Your task to perform on an android device: Show me popular games on the Play Store Image 0: 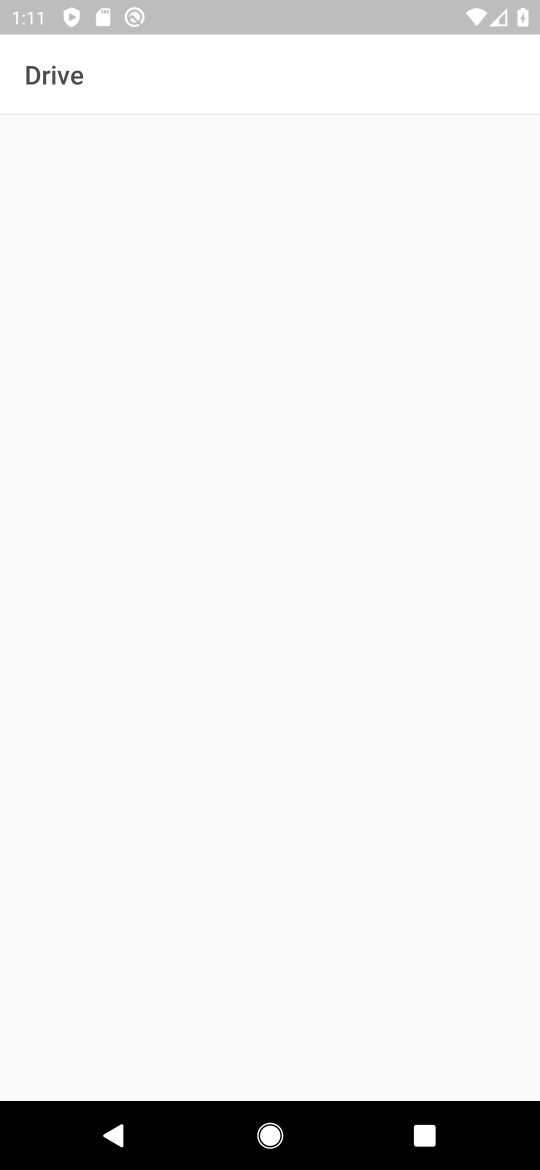
Step 0: press home button
Your task to perform on an android device: Show me popular games on the Play Store Image 1: 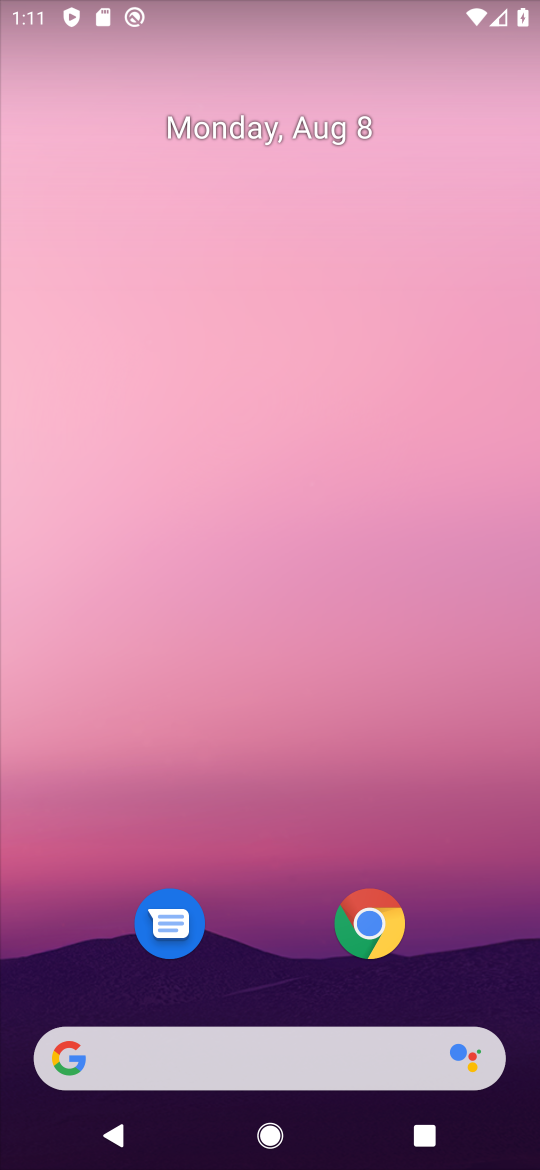
Step 1: drag from (265, 852) to (296, 448)
Your task to perform on an android device: Show me popular games on the Play Store Image 2: 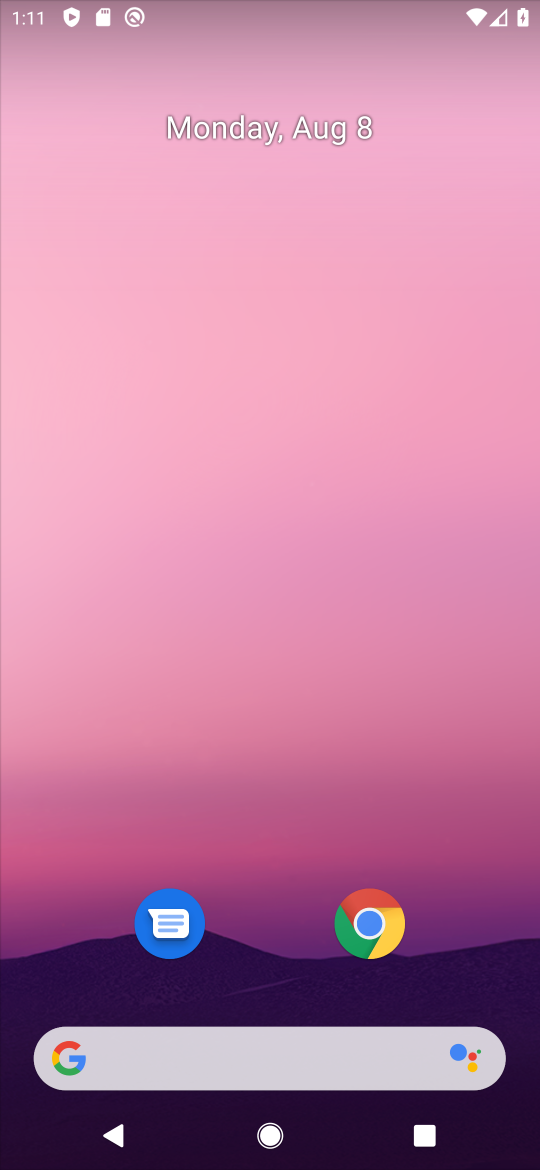
Step 2: drag from (261, 832) to (284, 377)
Your task to perform on an android device: Show me popular games on the Play Store Image 3: 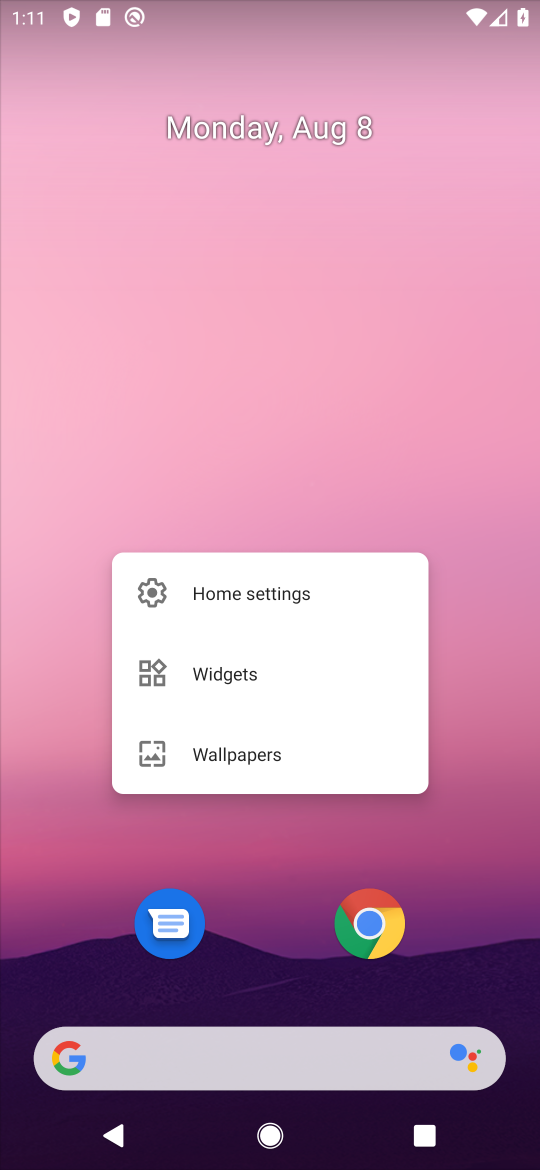
Step 3: click (517, 838)
Your task to perform on an android device: Show me popular games on the Play Store Image 4: 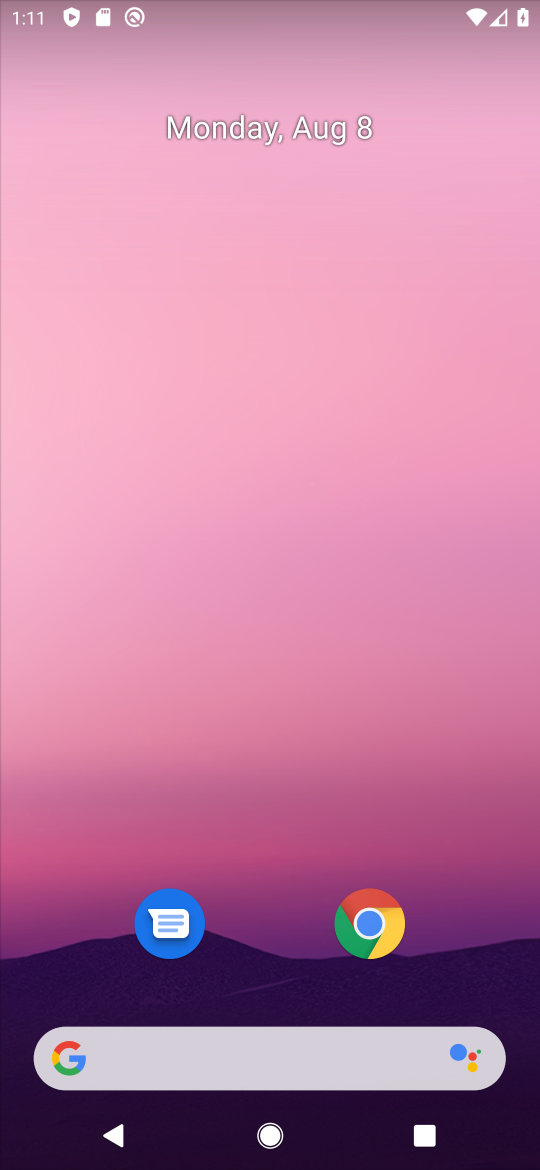
Step 4: drag from (241, 801) to (314, 217)
Your task to perform on an android device: Show me popular games on the Play Store Image 5: 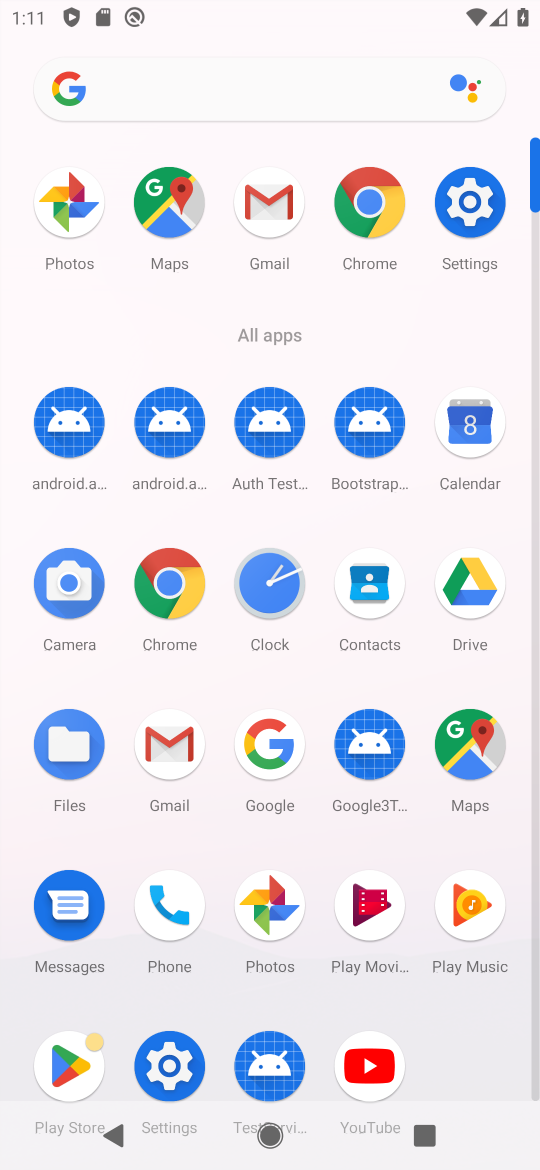
Step 5: click (75, 1055)
Your task to perform on an android device: Show me popular games on the Play Store Image 6: 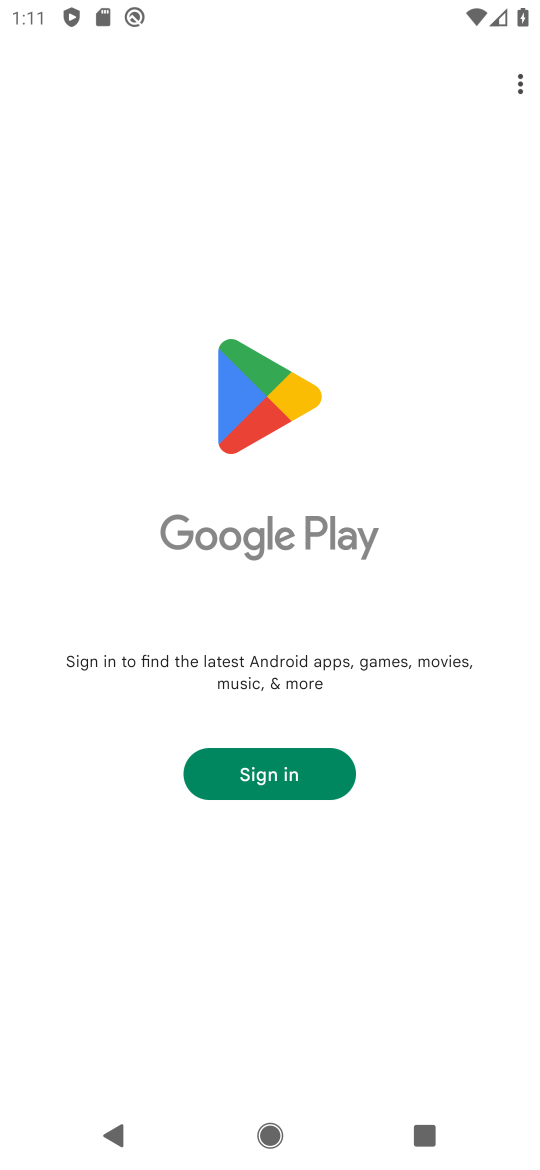
Step 6: task complete